Your task to perform on an android device: Open battery settings Image 0: 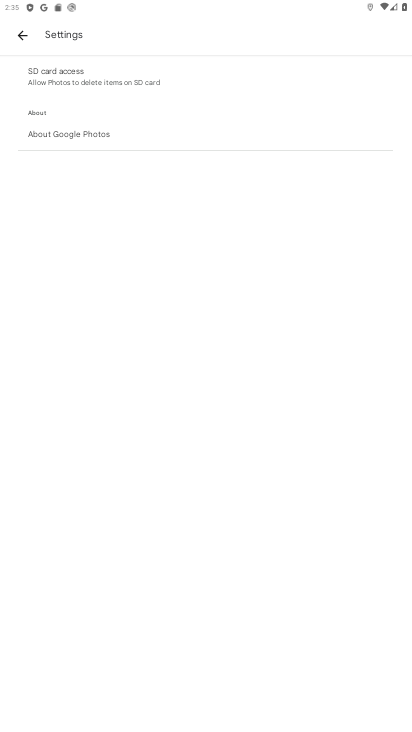
Step 0: press home button
Your task to perform on an android device: Open battery settings Image 1: 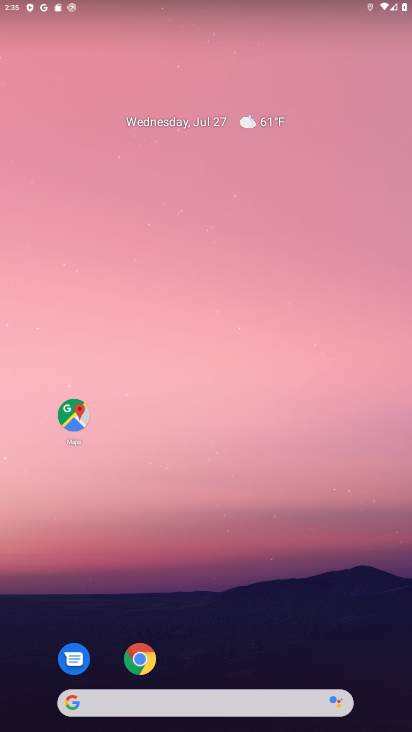
Step 1: drag from (208, 670) to (189, 223)
Your task to perform on an android device: Open battery settings Image 2: 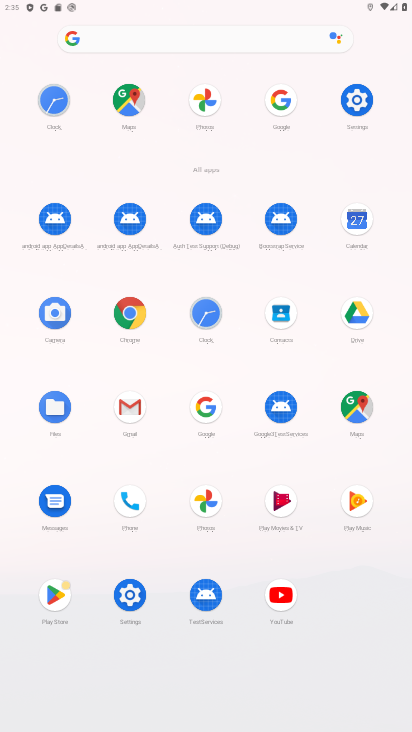
Step 2: click (351, 102)
Your task to perform on an android device: Open battery settings Image 3: 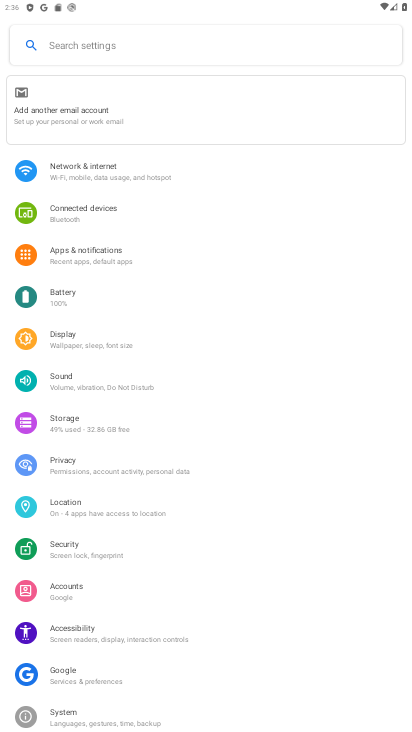
Step 3: click (43, 297)
Your task to perform on an android device: Open battery settings Image 4: 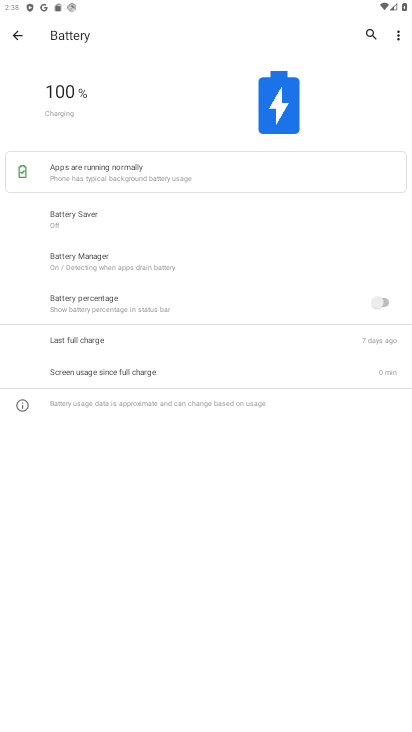
Step 4: task complete